Your task to perform on an android device: open the mobile data screen to see how much data has been used Image 0: 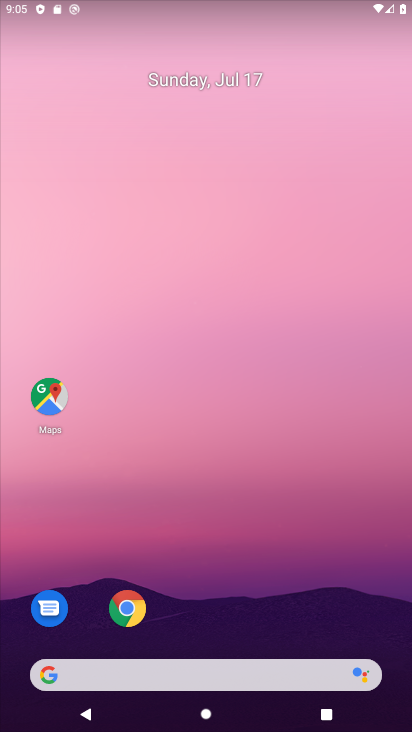
Step 0: drag from (203, 634) to (275, 125)
Your task to perform on an android device: open the mobile data screen to see how much data has been used Image 1: 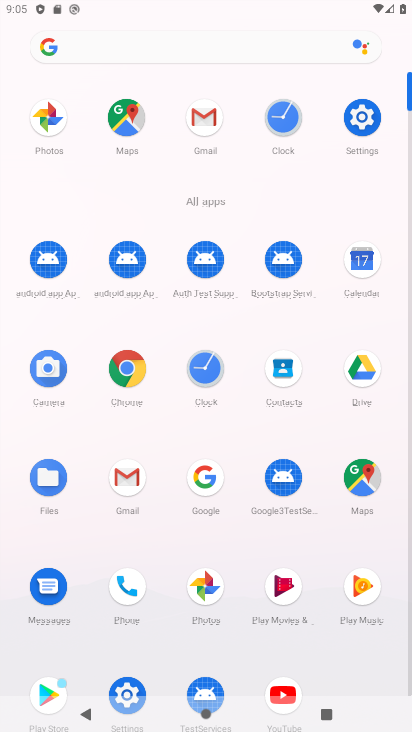
Step 1: click (124, 683)
Your task to perform on an android device: open the mobile data screen to see how much data has been used Image 2: 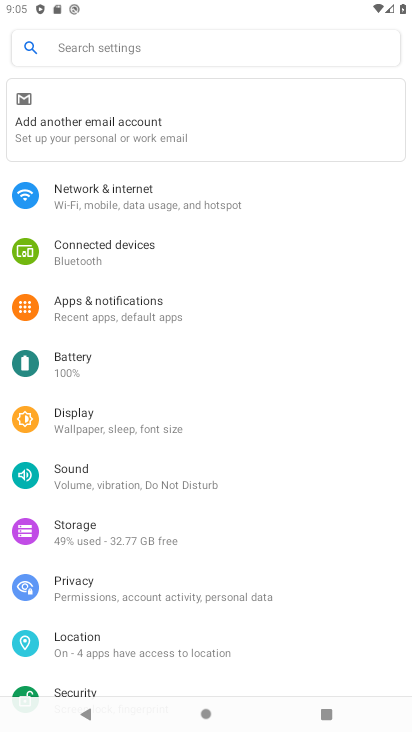
Step 2: click (171, 212)
Your task to perform on an android device: open the mobile data screen to see how much data has been used Image 3: 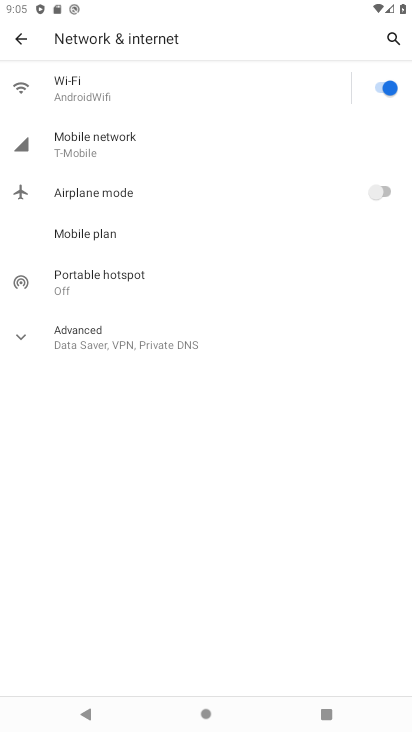
Step 3: click (171, 152)
Your task to perform on an android device: open the mobile data screen to see how much data has been used Image 4: 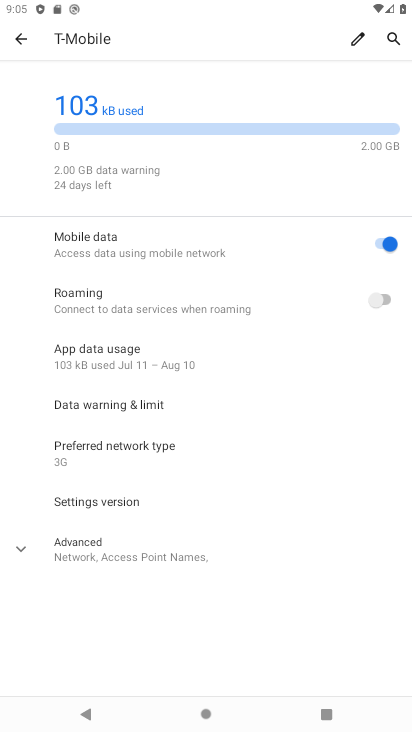
Step 4: task complete